Your task to perform on an android device: turn off smart reply in the gmail app Image 0: 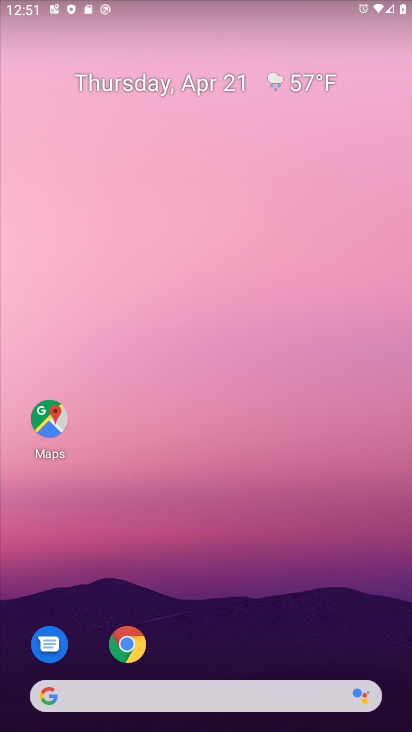
Step 0: drag from (205, 667) to (182, 67)
Your task to perform on an android device: turn off smart reply in the gmail app Image 1: 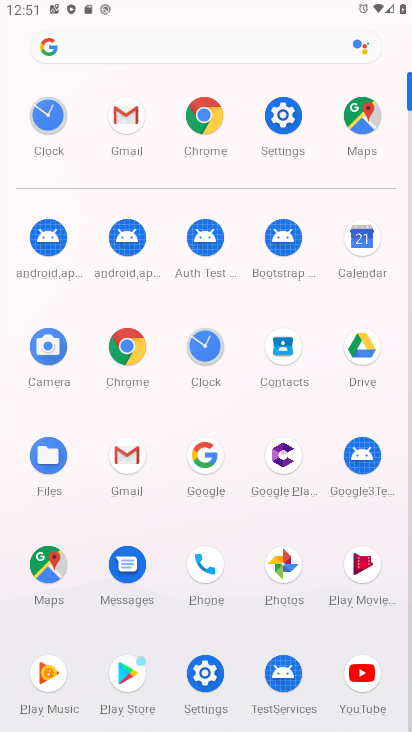
Step 1: click (120, 119)
Your task to perform on an android device: turn off smart reply in the gmail app Image 2: 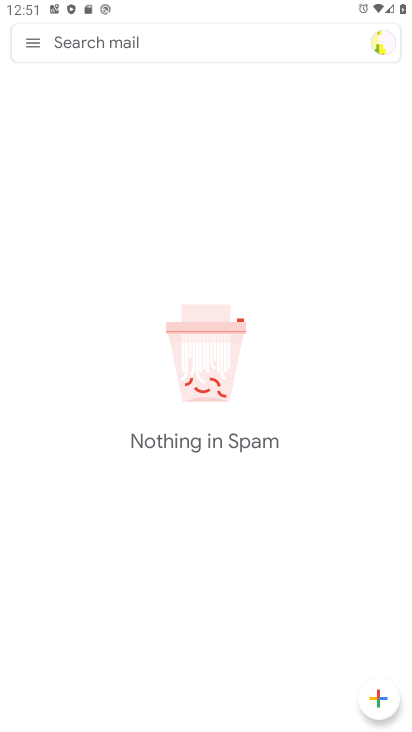
Step 2: click (32, 40)
Your task to perform on an android device: turn off smart reply in the gmail app Image 3: 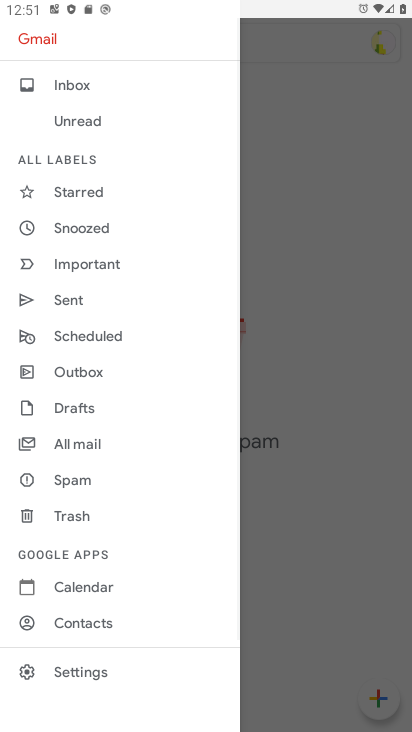
Step 3: click (89, 660)
Your task to perform on an android device: turn off smart reply in the gmail app Image 4: 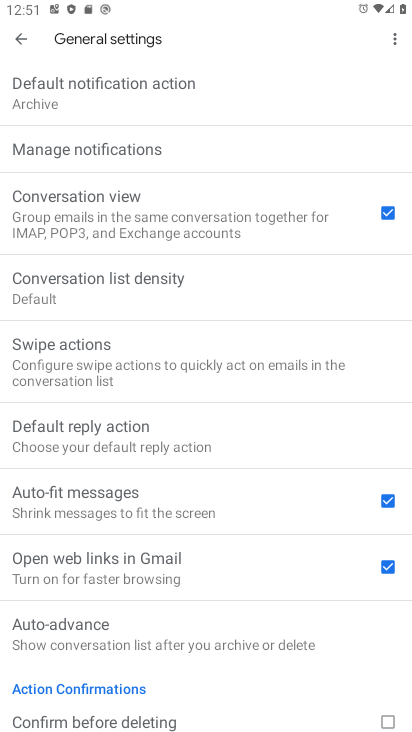
Step 4: click (18, 43)
Your task to perform on an android device: turn off smart reply in the gmail app Image 5: 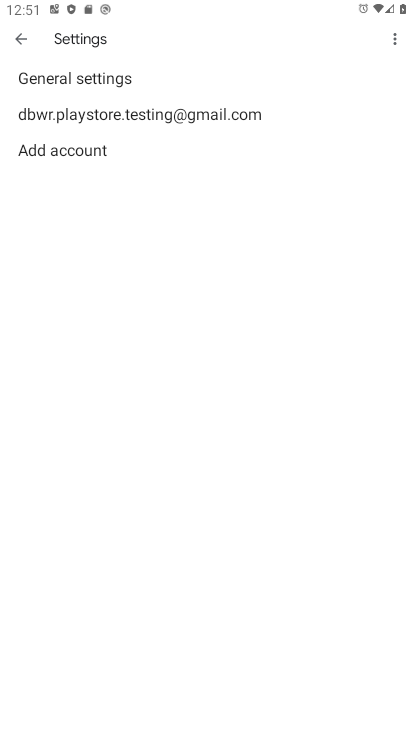
Step 5: click (37, 103)
Your task to perform on an android device: turn off smart reply in the gmail app Image 6: 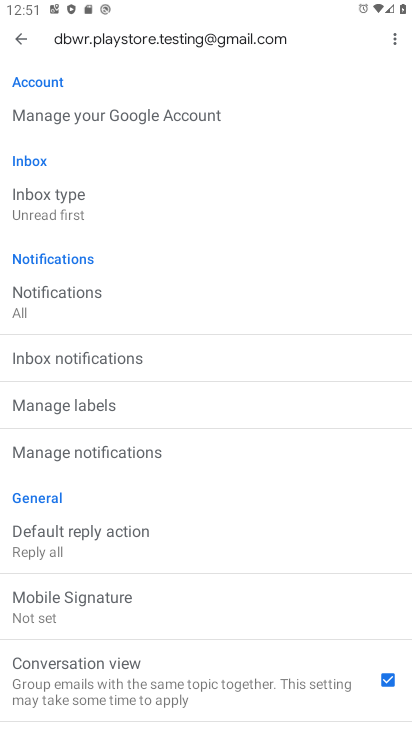
Step 6: drag from (118, 644) to (75, 399)
Your task to perform on an android device: turn off smart reply in the gmail app Image 7: 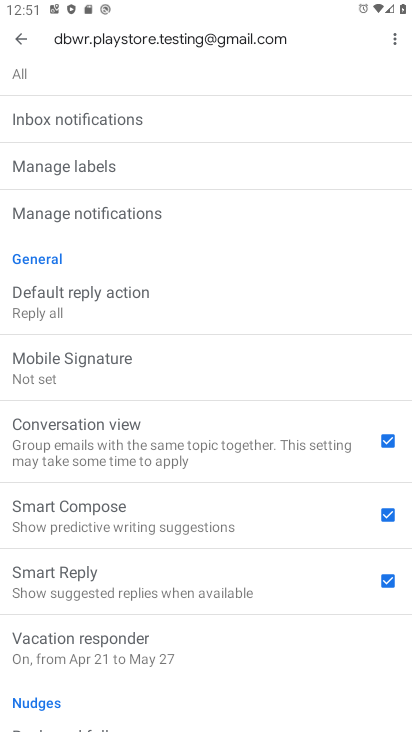
Step 7: click (376, 582)
Your task to perform on an android device: turn off smart reply in the gmail app Image 8: 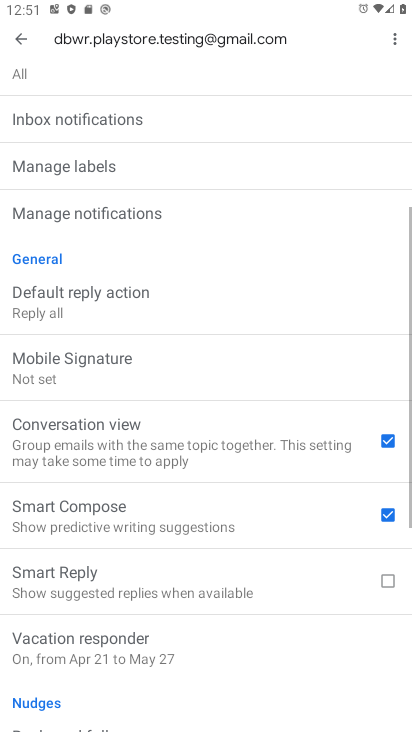
Step 8: task complete